Your task to perform on an android device: open app "Etsy: Buy & Sell Unique Items" (install if not already installed) Image 0: 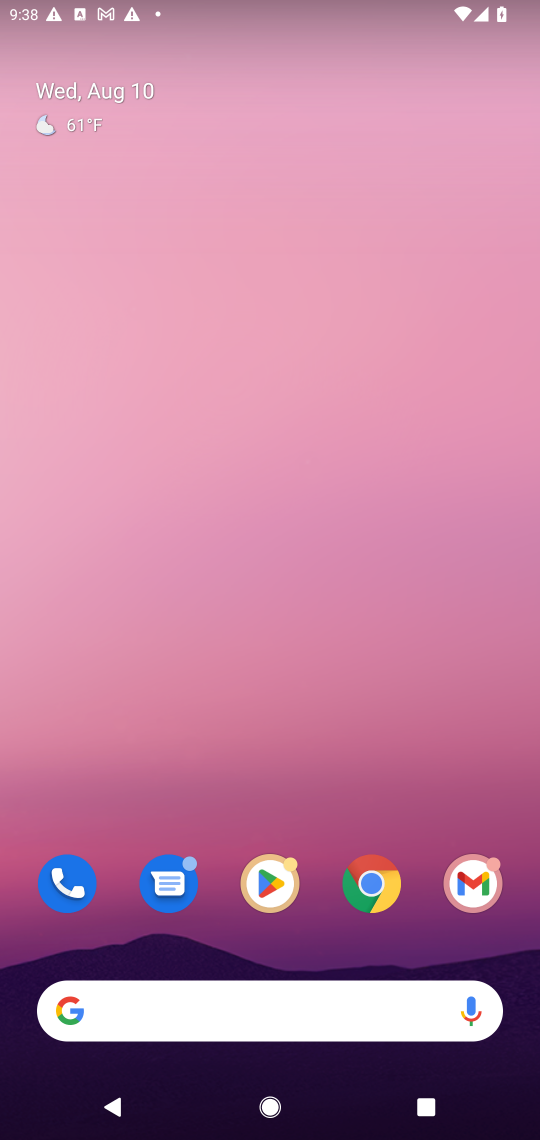
Step 0: click (281, 866)
Your task to perform on an android device: open app "Etsy: Buy & Sell Unique Items" (install if not already installed) Image 1: 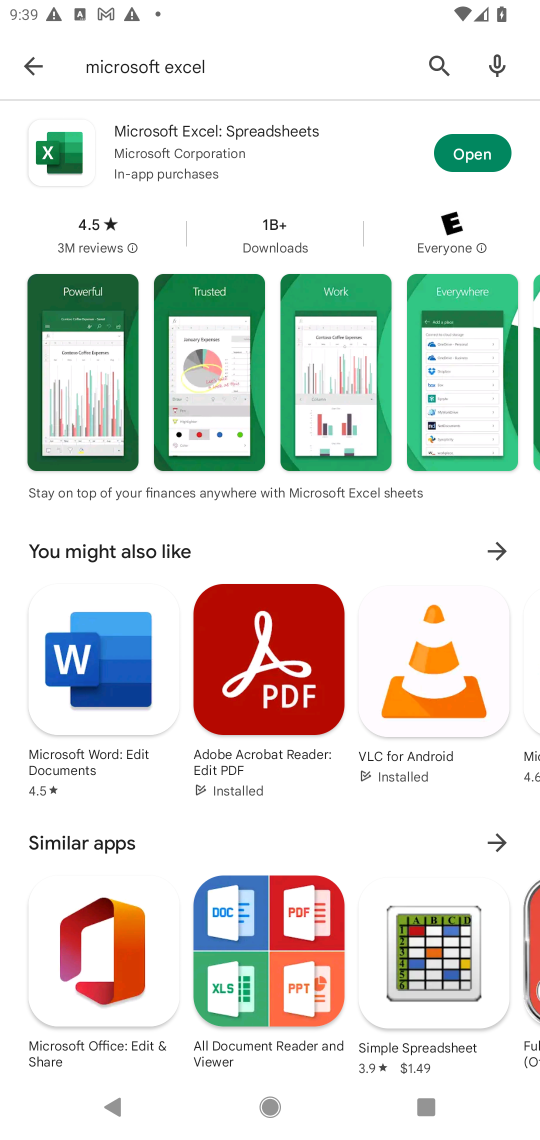
Step 1: click (431, 66)
Your task to perform on an android device: open app "Etsy: Buy & Sell Unique Items" (install if not already installed) Image 2: 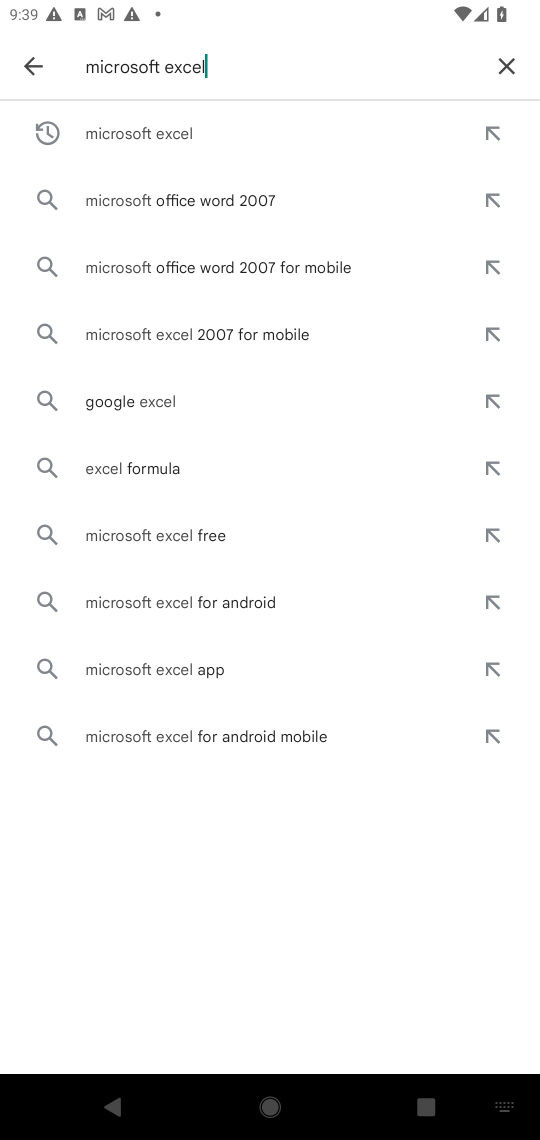
Step 2: click (501, 70)
Your task to perform on an android device: open app "Etsy: Buy & Sell Unique Items" (install if not already installed) Image 3: 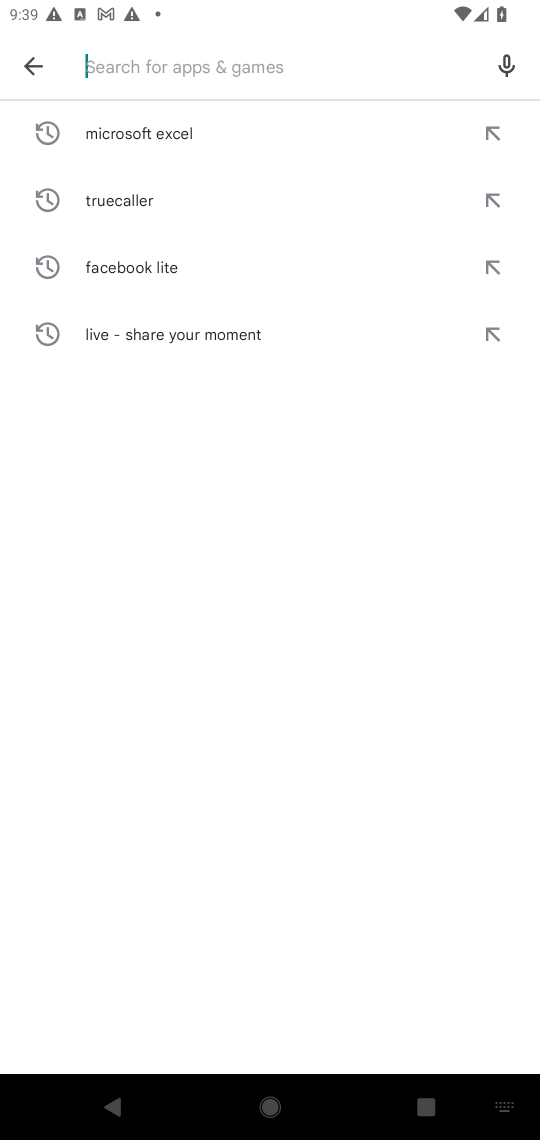
Step 3: type "Etsy: Buy & Sell Unique Items"
Your task to perform on an android device: open app "Etsy: Buy & Sell Unique Items" (install if not already installed) Image 4: 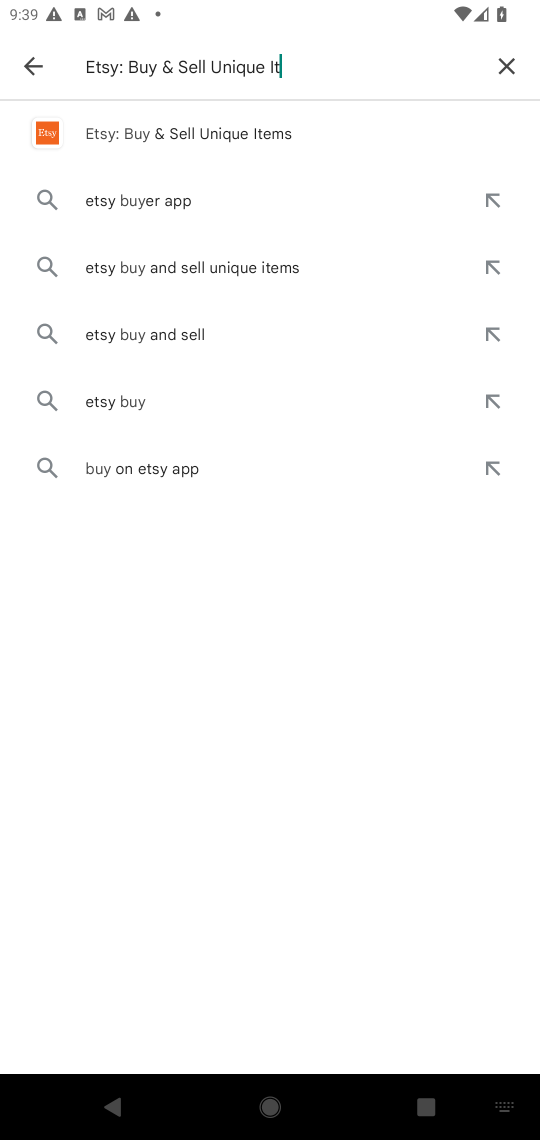
Step 4: type ""
Your task to perform on an android device: open app "Etsy: Buy & Sell Unique Items" (install if not already installed) Image 5: 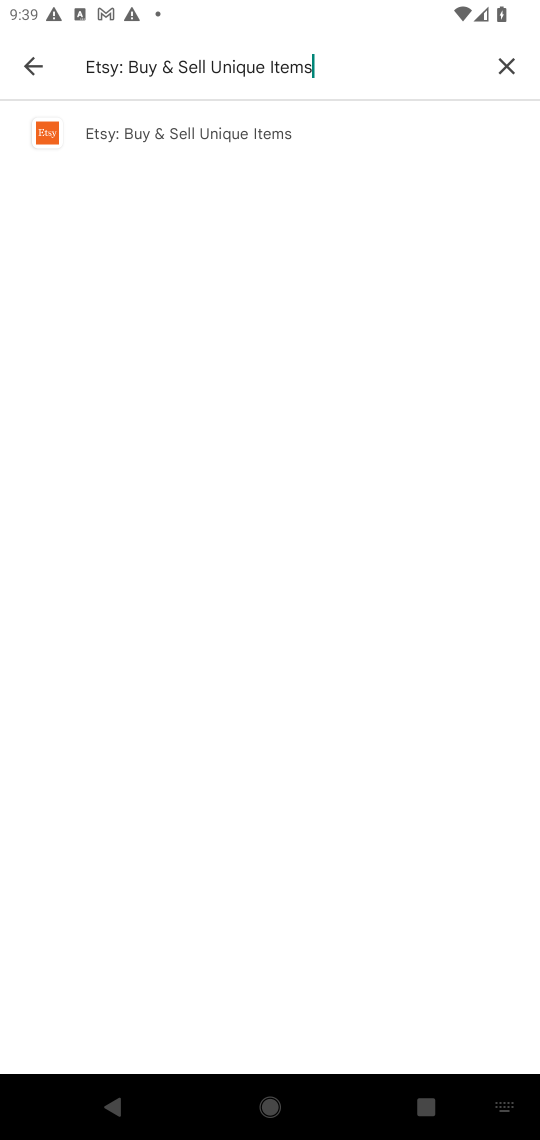
Step 5: click (97, 130)
Your task to perform on an android device: open app "Etsy: Buy & Sell Unique Items" (install if not already installed) Image 6: 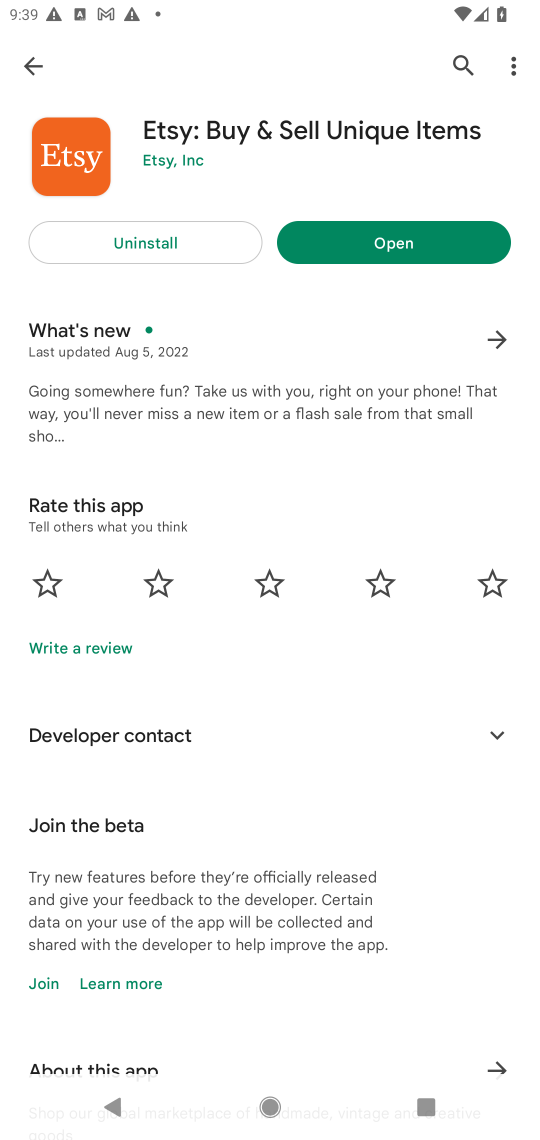
Step 6: click (376, 251)
Your task to perform on an android device: open app "Etsy: Buy & Sell Unique Items" (install if not already installed) Image 7: 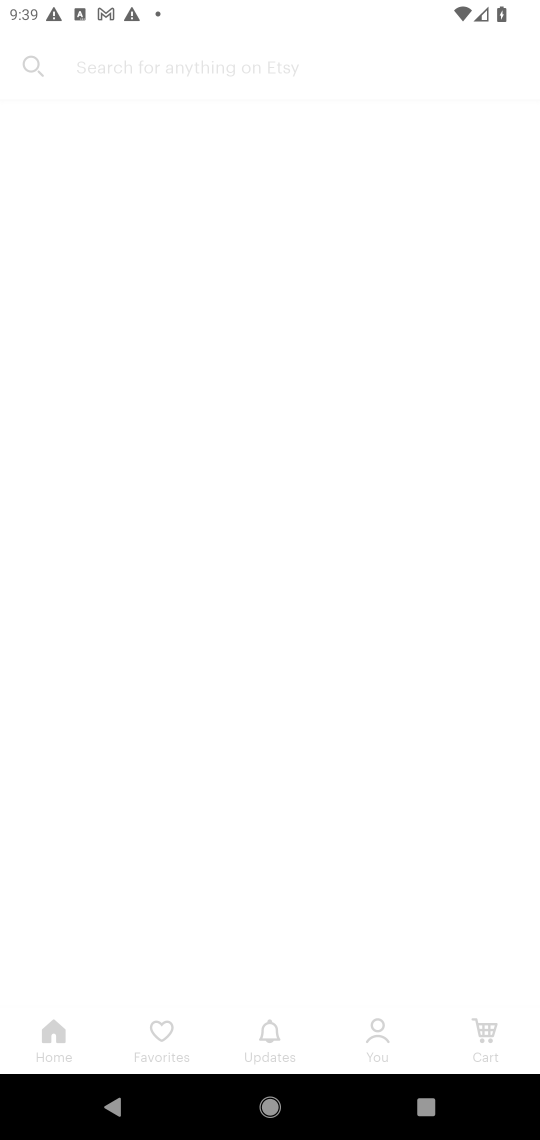
Step 7: task complete